Your task to perform on an android device: toggle location history Image 0: 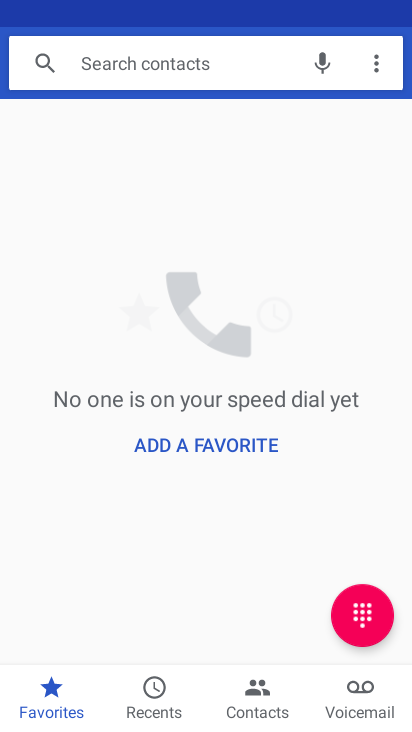
Step 0: press back button
Your task to perform on an android device: toggle location history Image 1: 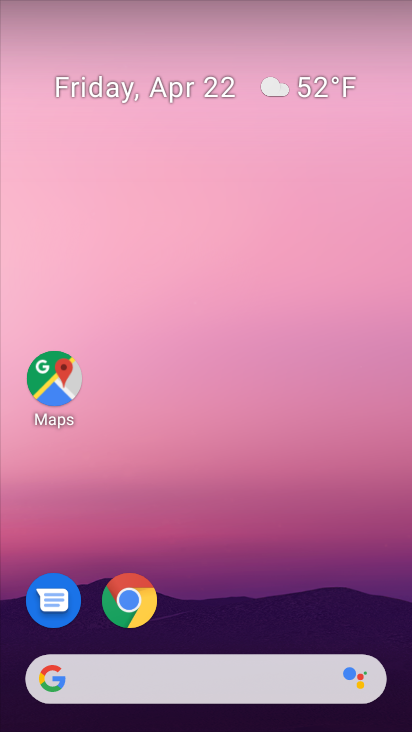
Step 1: drag from (229, 452) to (197, 47)
Your task to perform on an android device: toggle location history Image 2: 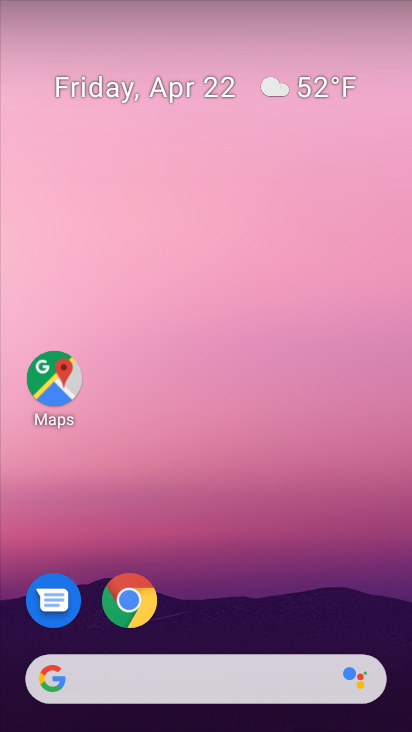
Step 2: drag from (324, 550) to (238, 5)
Your task to perform on an android device: toggle location history Image 3: 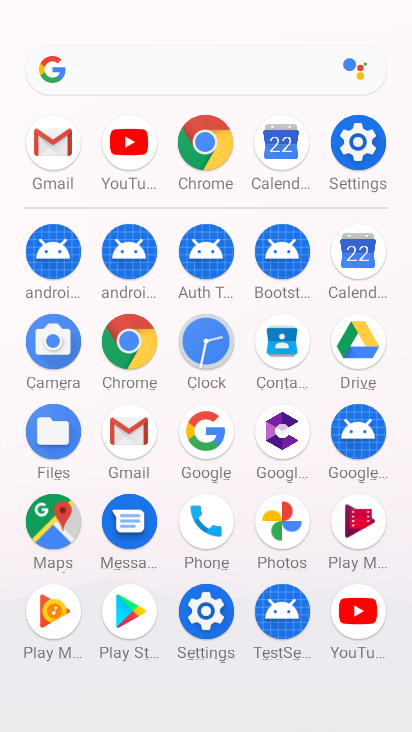
Step 3: click (202, 614)
Your task to perform on an android device: toggle location history Image 4: 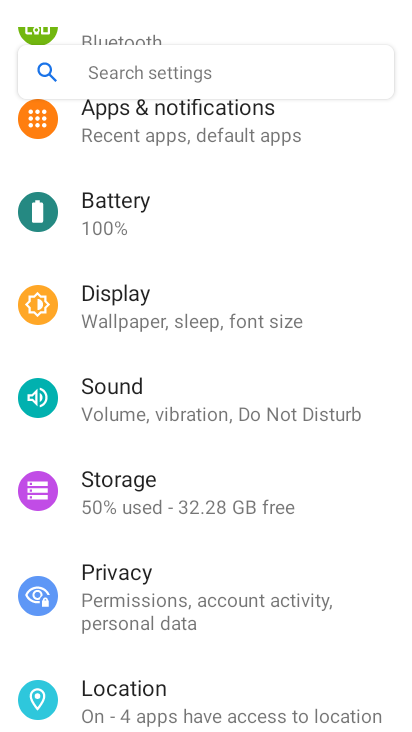
Step 4: drag from (321, 426) to (310, 167)
Your task to perform on an android device: toggle location history Image 5: 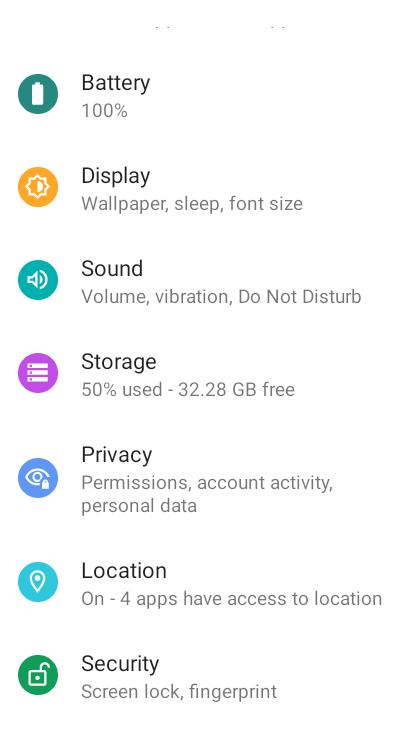
Step 5: click (246, 585)
Your task to perform on an android device: toggle location history Image 6: 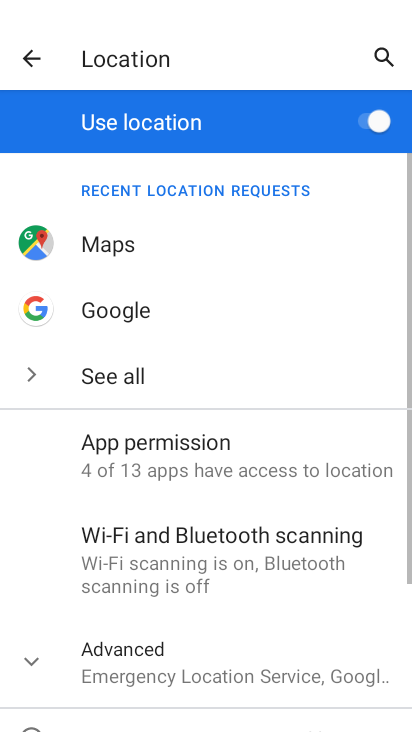
Step 6: click (215, 655)
Your task to perform on an android device: toggle location history Image 7: 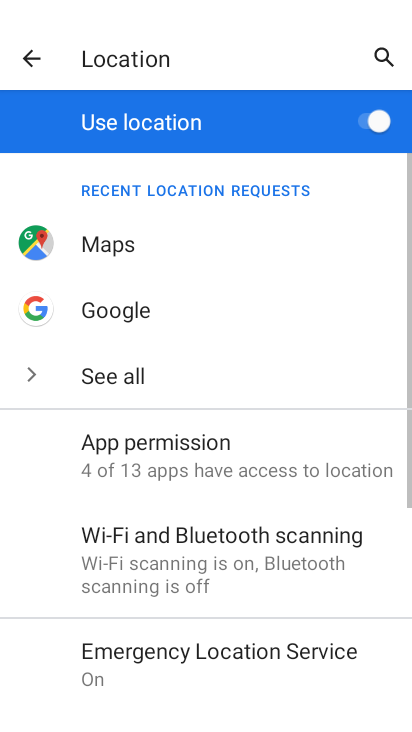
Step 7: drag from (281, 440) to (255, 168)
Your task to perform on an android device: toggle location history Image 8: 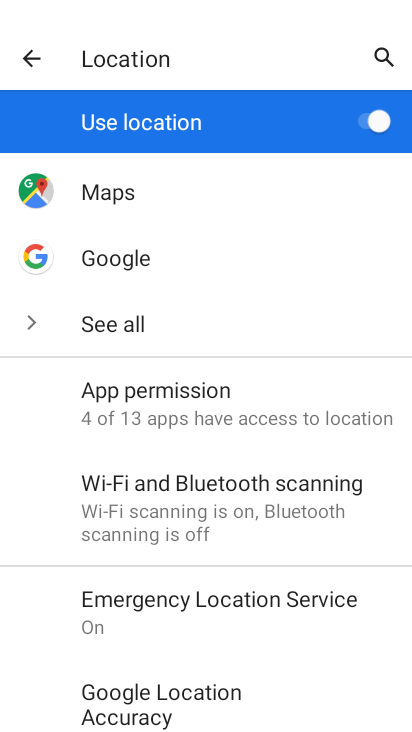
Step 8: drag from (259, 538) to (252, 205)
Your task to perform on an android device: toggle location history Image 9: 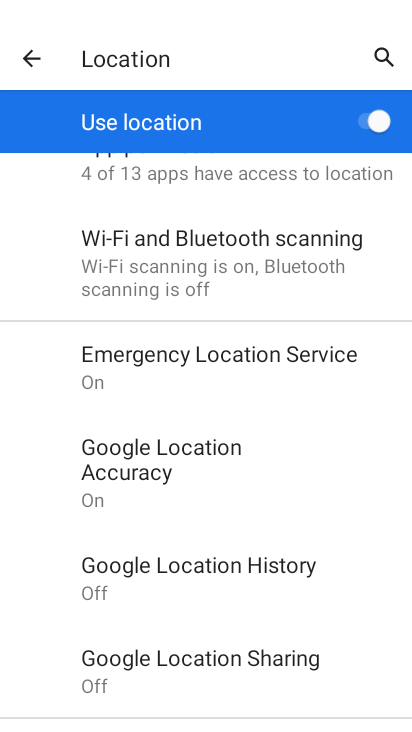
Step 9: click (225, 558)
Your task to perform on an android device: toggle location history Image 10: 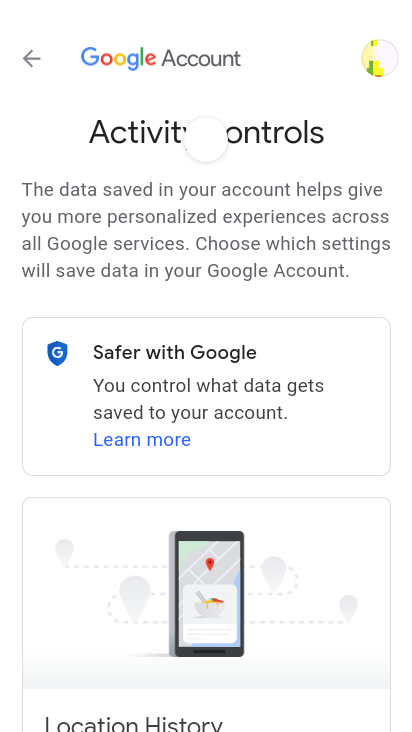
Step 10: drag from (265, 545) to (212, 174)
Your task to perform on an android device: toggle location history Image 11: 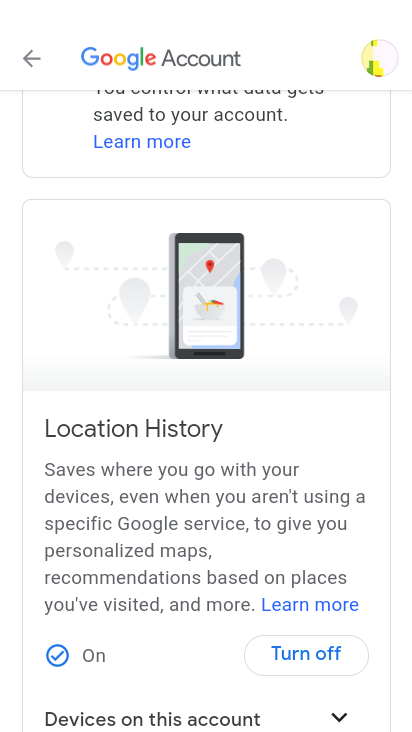
Step 11: drag from (317, 481) to (306, 165)
Your task to perform on an android device: toggle location history Image 12: 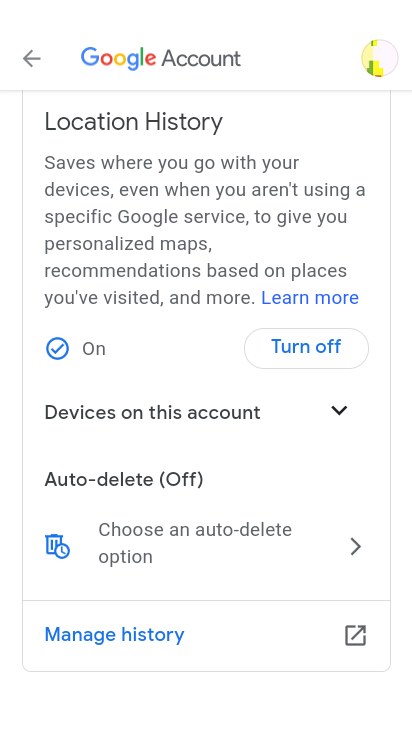
Step 12: click (318, 350)
Your task to perform on an android device: toggle location history Image 13: 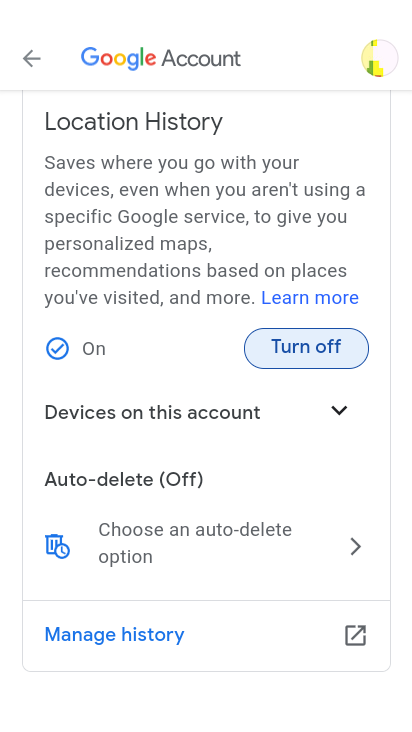
Step 13: click (318, 350)
Your task to perform on an android device: toggle location history Image 14: 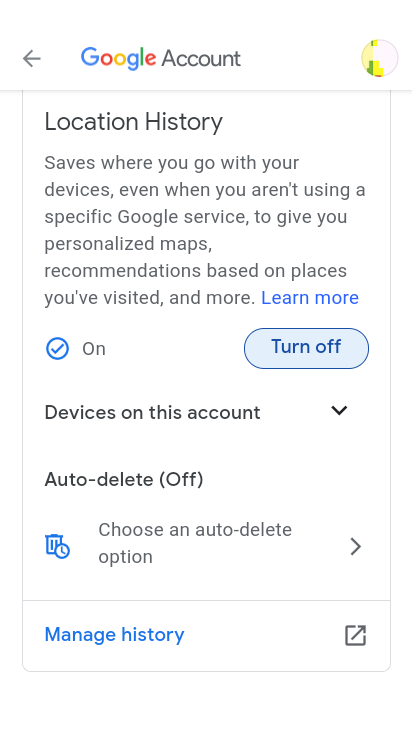
Step 14: click (318, 350)
Your task to perform on an android device: toggle location history Image 15: 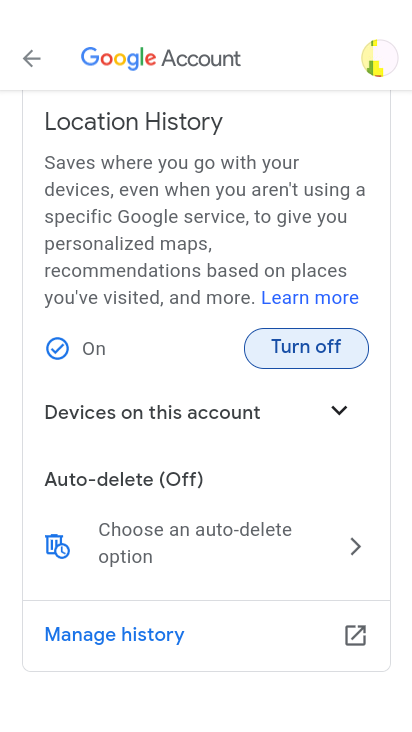
Step 15: click (297, 347)
Your task to perform on an android device: toggle location history Image 16: 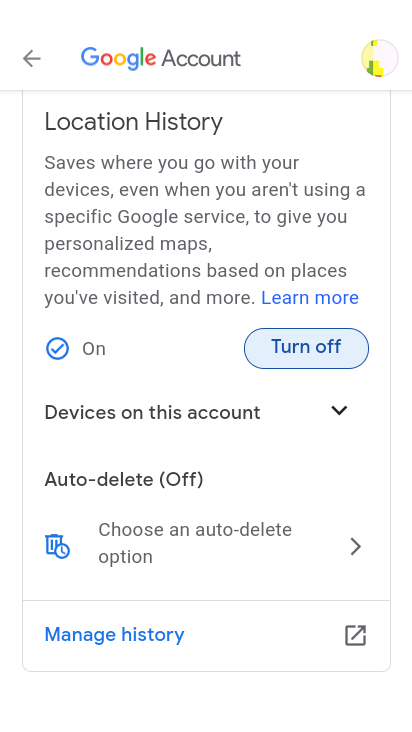
Step 16: click (321, 360)
Your task to perform on an android device: toggle location history Image 17: 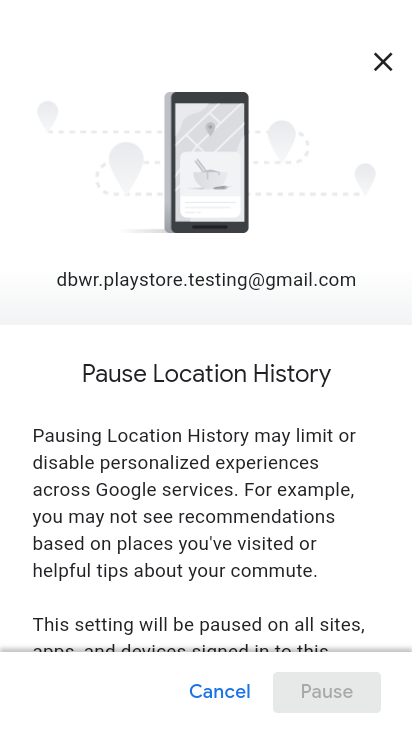
Step 17: drag from (276, 558) to (227, 113)
Your task to perform on an android device: toggle location history Image 18: 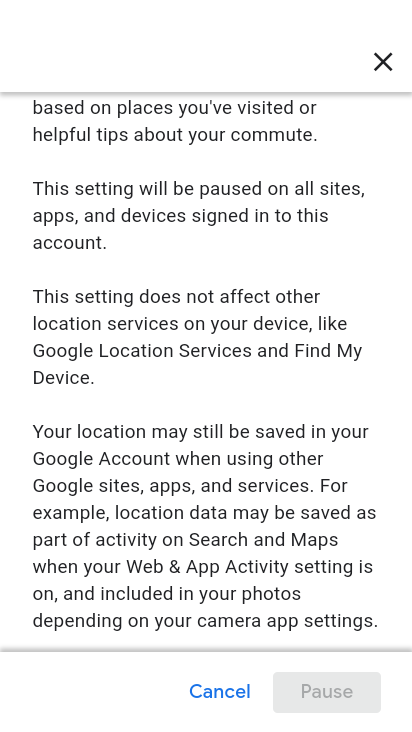
Step 18: drag from (255, 487) to (231, 113)
Your task to perform on an android device: toggle location history Image 19: 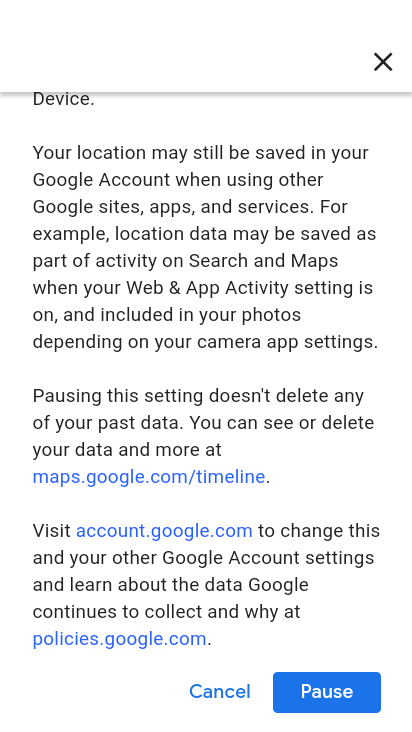
Step 19: drag from (256, 443) to (244, 105)
Your task to perform on an android device: toggle location history Image 20: 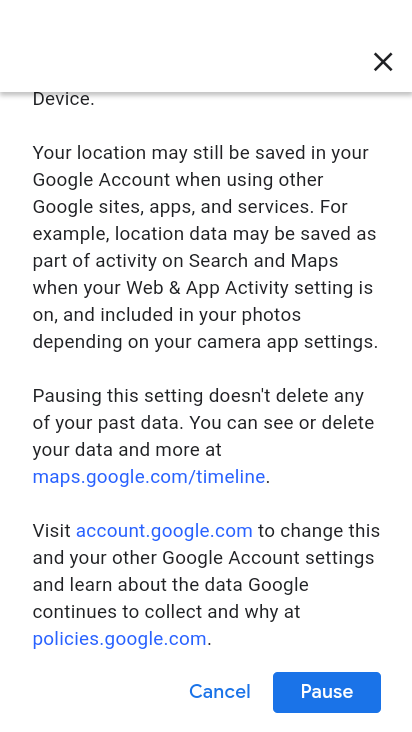
Step 20: drag from (240, 506) to (246, 127)
Your task to perform on an android device: toggle location history Image 21: 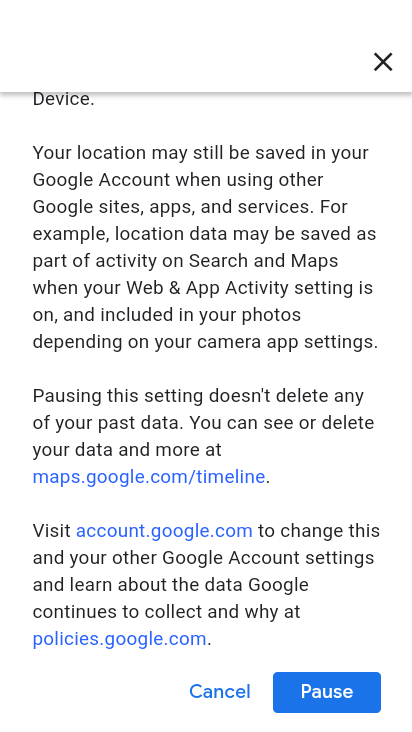
Step 21: click (334, 684)
Your task to perform on an android device: toggle location history Image 22: 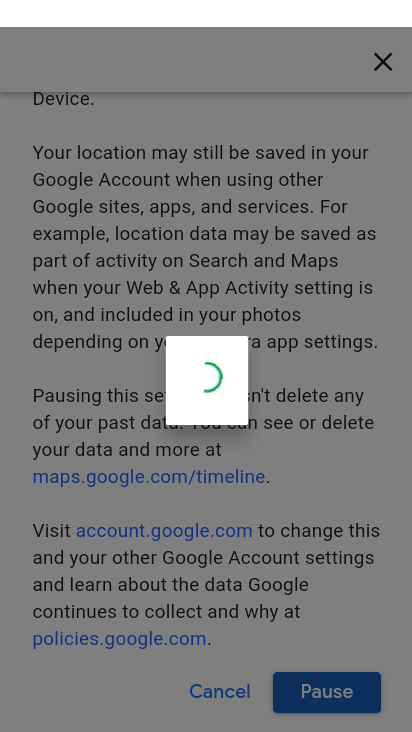
Step 22: click (334, 685)
Your task to perform on an android device: toggle location history Image 23: 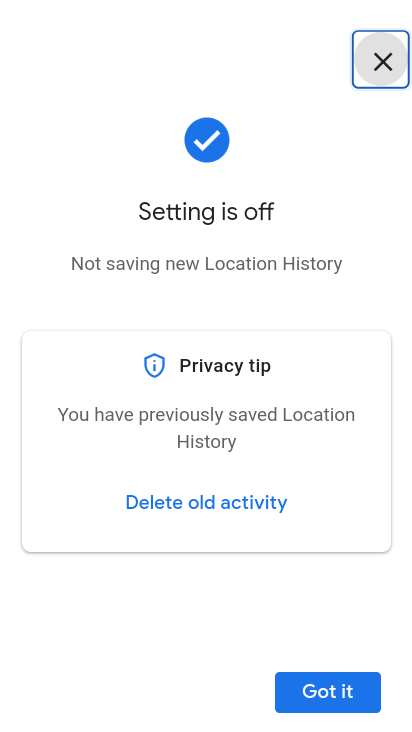
Step 23: click (344, 681)
Your task to perform on an android device: toggle location history Image 24: 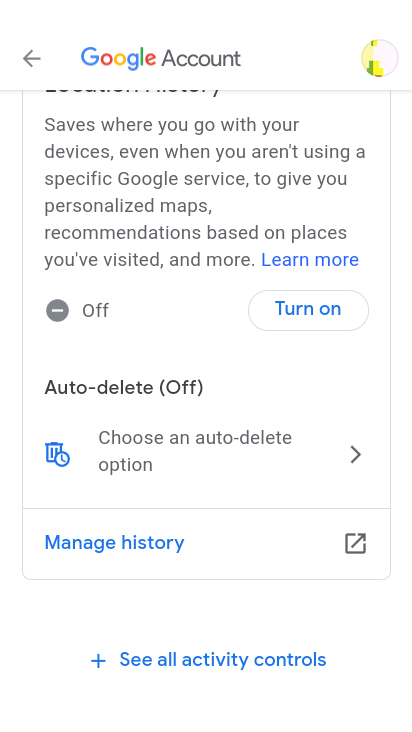
Step 24: task complete